Your task to perform on an android device: Find coffee shops on Maps Image 0: 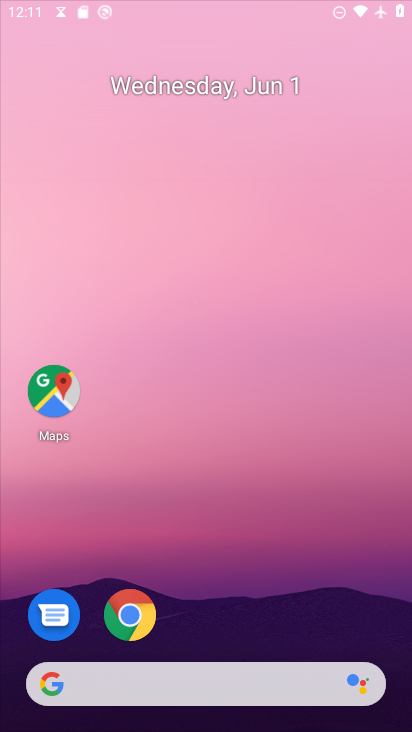
Step 0: click (229, 193)
Your task to perform on an android device: Find coffee shops on Maps Image 1: 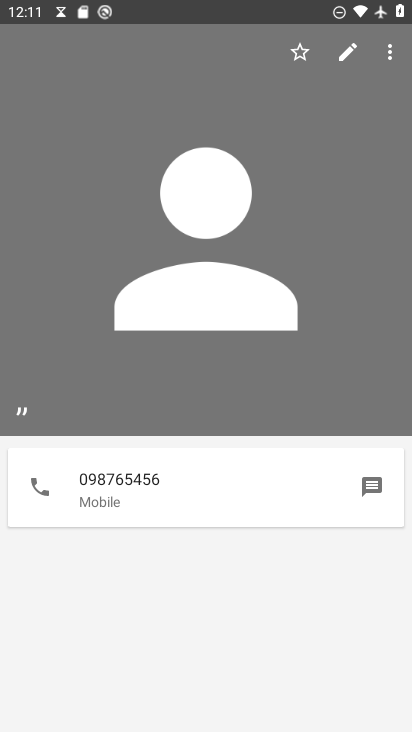
Step 1: press home button
Your task to perform on an android device: Find coffee shops on Maps Image 2: 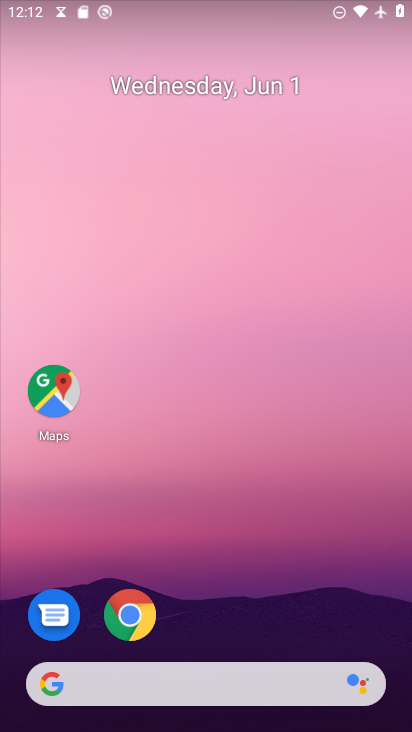
Step 2: drag from (232, 694) to (261, 63)
Your task to perform on an android device: Find coffee shops on Maps Image 3: 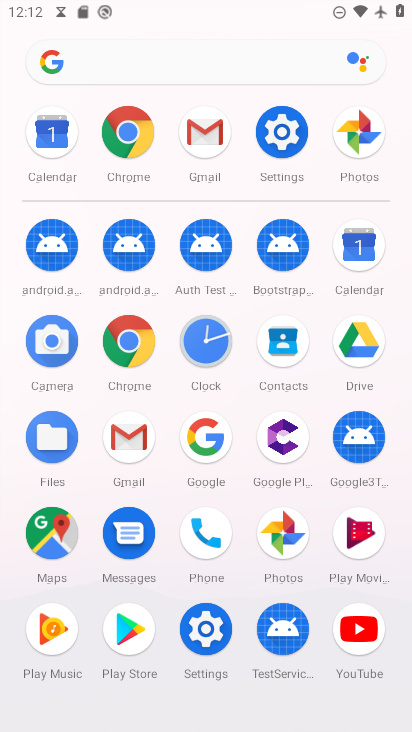
Step 3: click (42, 514)
Your task to perform on an android device: Find coffee shops on Maps Image 4: 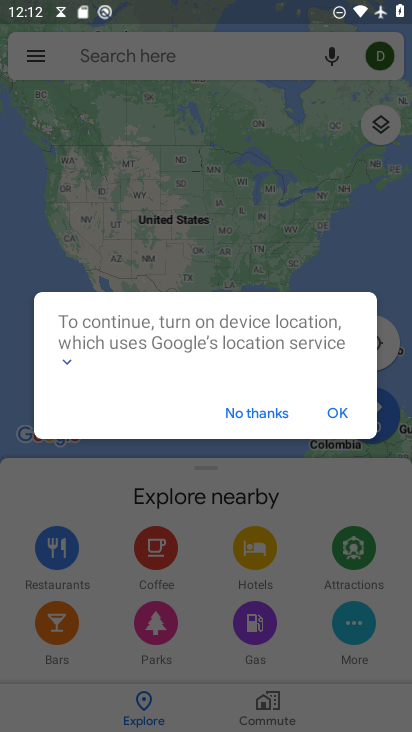
Step 4: click (283, 419)
Your task to perform on an android device: Find coffee shops on Maps Image 5: 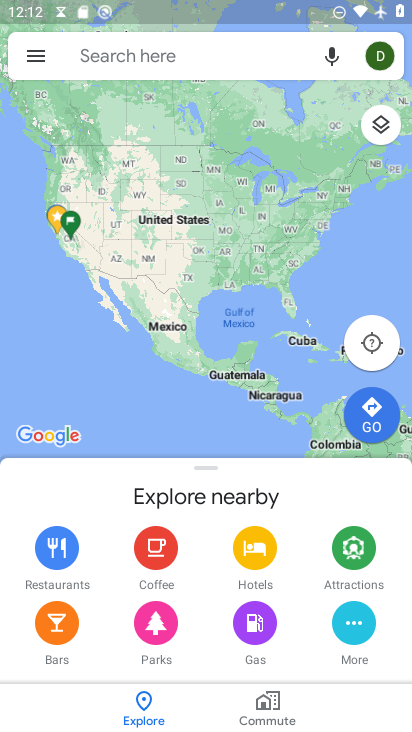
Step 5: click (204, 69)
Your task to perform on an android device: Find coffee shops on Maps Image 6: 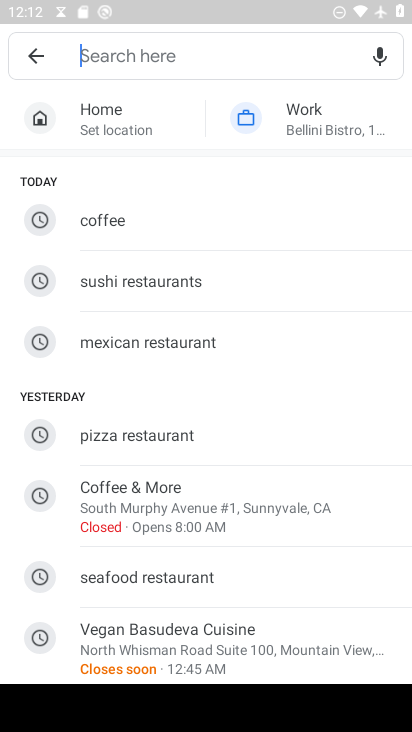
Step 6: type "coffee shop"
Your task to perform on an android device: Find coffee shops on Maps Image 7: 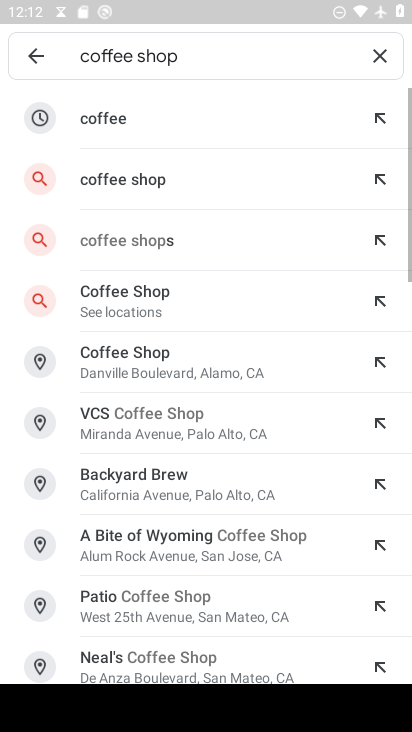
Step 7: click (168, 180)
Your task to perform on an android device: Find coffee shops on Maps Image 8: 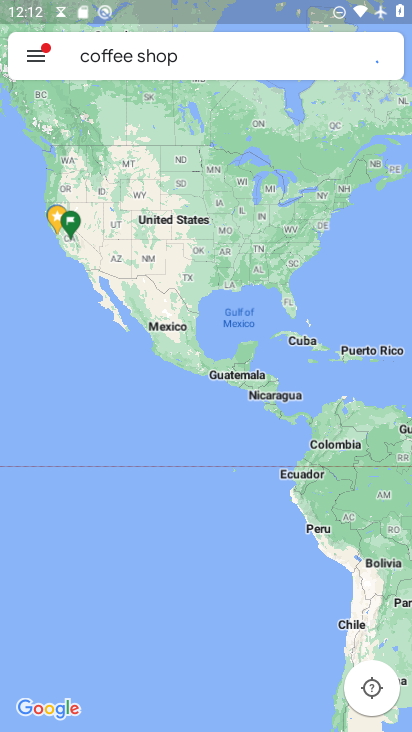
Step 8: task complete